Your task to perform on an android device: turn on wifi Image 0: 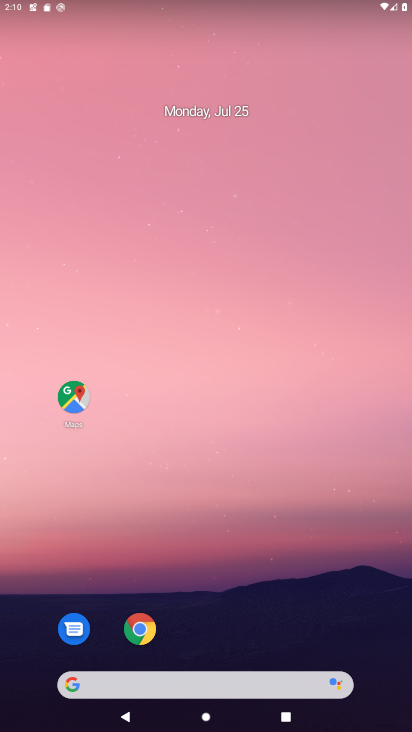
Step 0: drag from (264, 670) to (218, 0)
Your task to perform on an android device: turn on wifi Image 1: 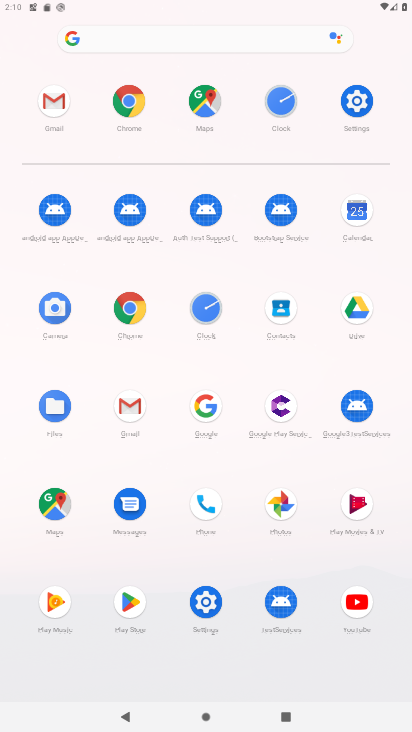
Step 1: click (351, 103)
Your task to perform on an android device: turn on wifi Image 2: 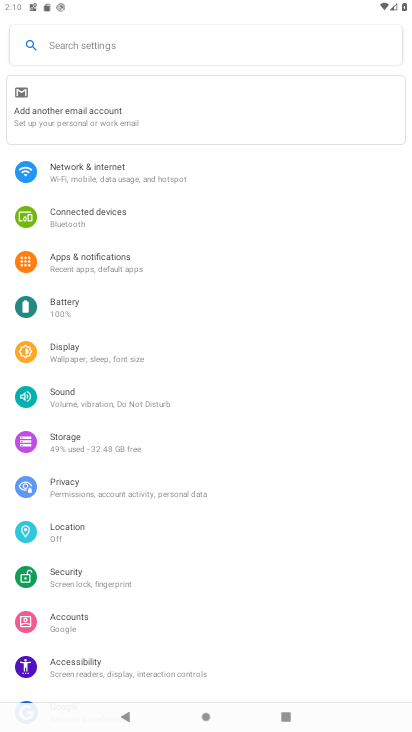
Step 2: click (104, 170)
Your task to perform on an android device: turn on wifi Image 3: 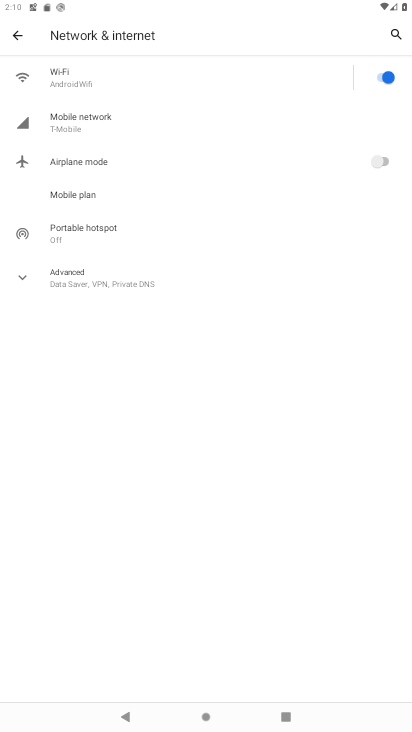
Step 3: task complete